Your task to perform on an android device: Go to Google Image 0: 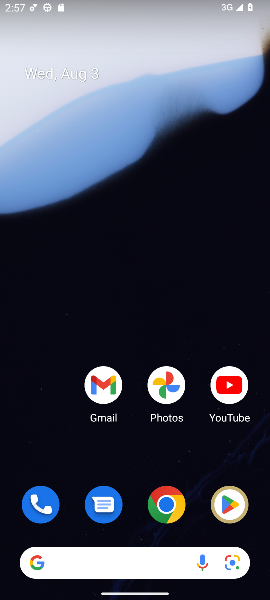
Step 0: drag from (141, 465) to (201, 9)
Your task to perform on an android device: Go to Google Image 1: 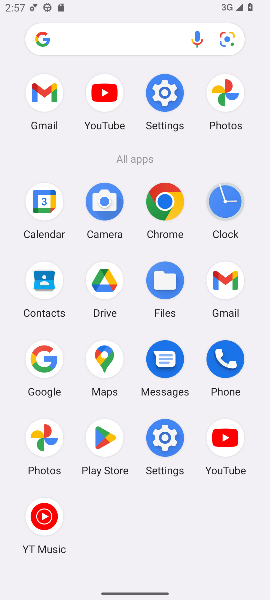
Step 1: click (44, 357)
Your task to perform on an android device: Go to Google Image 2: 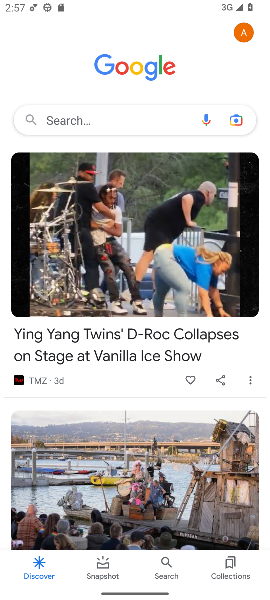
Step 2: task complete